Your task to perform on an android device: open app "Microsoft Excel" (install if not already installed) Image 0: 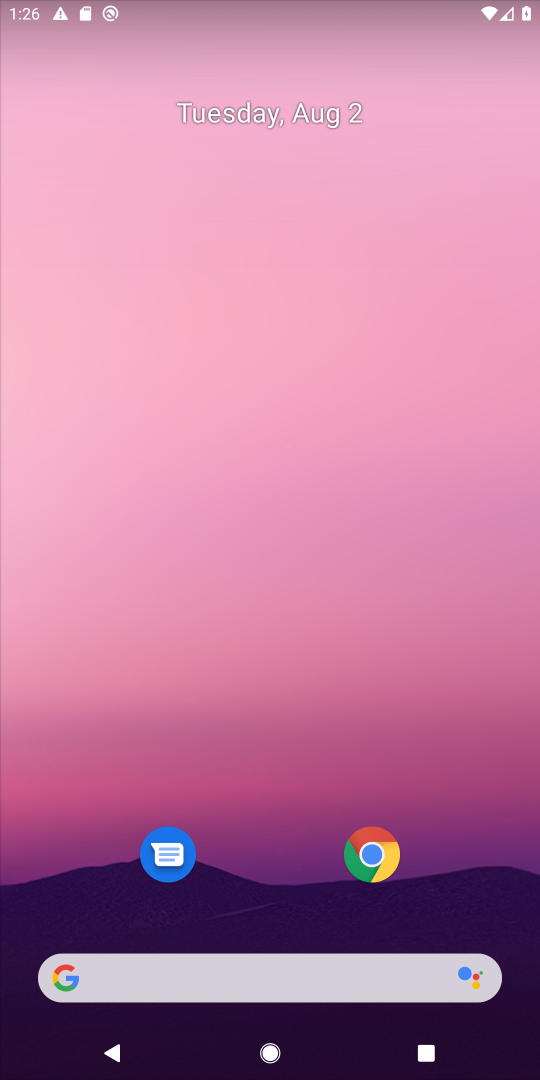
Step 0: drag from (313, 1071) to (369, 111)
Your task to perform on an android device: open app "Microsoft Excel" (install if not already installed) Image 1: 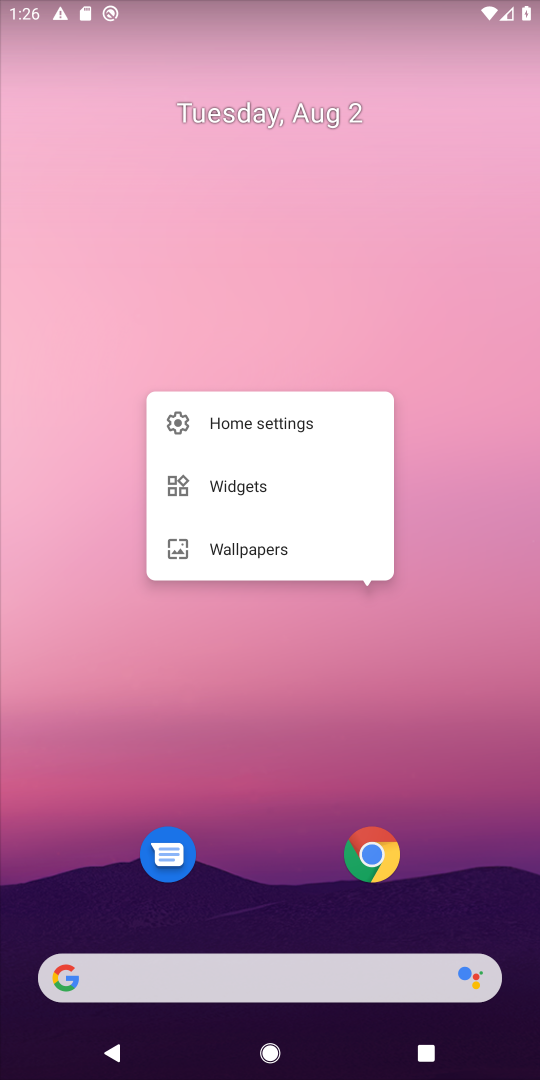
Step 1: press home button
Your task to perform on an android device: open app "Microsoft Excel" (install if not already installed) Image 2: 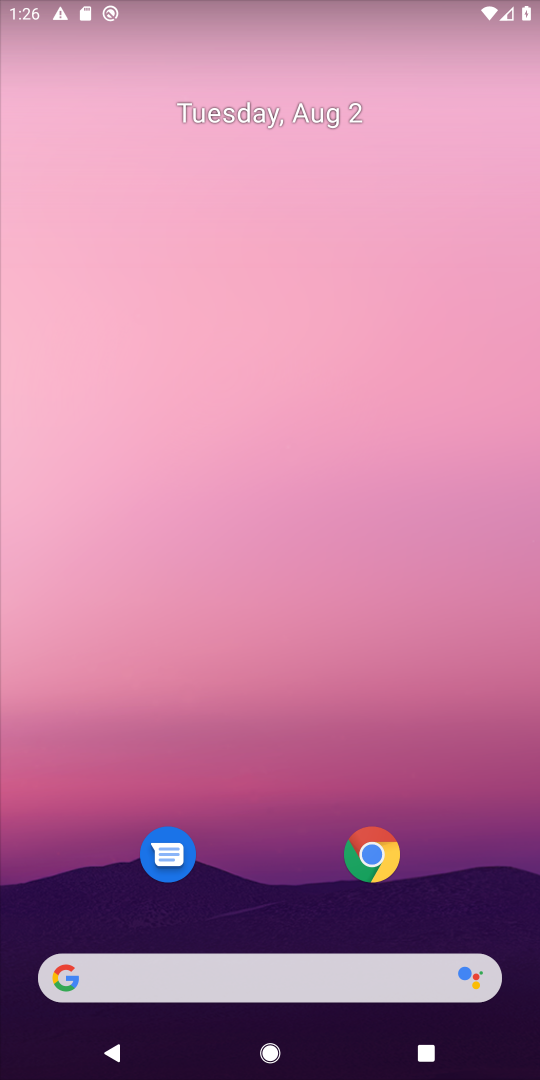
Step 2: drag from (309, 536) to (338, 149)
Your task to perform on an android device: open app "Microsoft Excel" (install if not already installed) Image 3: 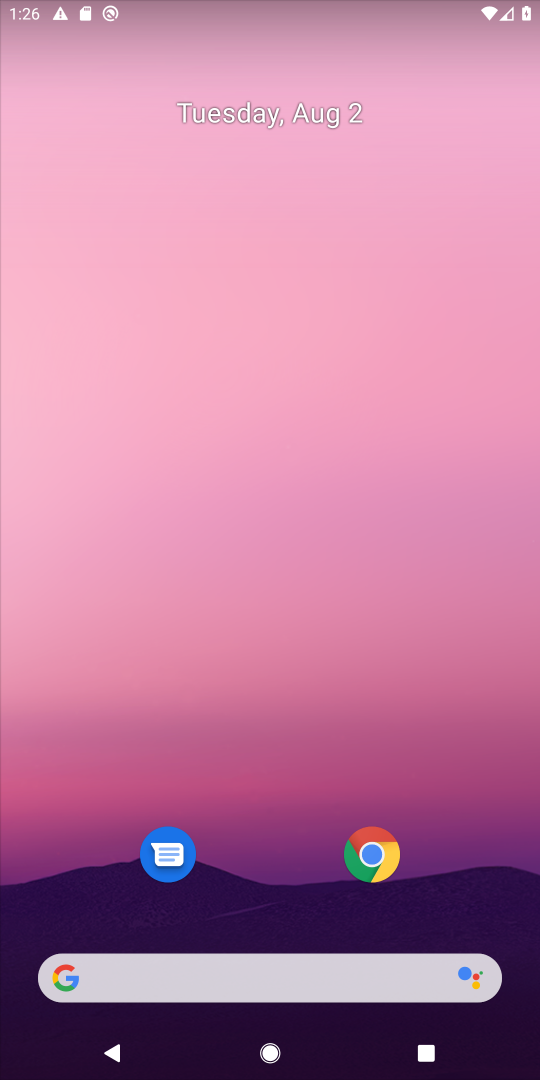
Step 3: drag from (313, 1067) to (358, 30)
Your task to perform on an android device: open app "Microsoft Excel" (install if not already installed) Image 4: 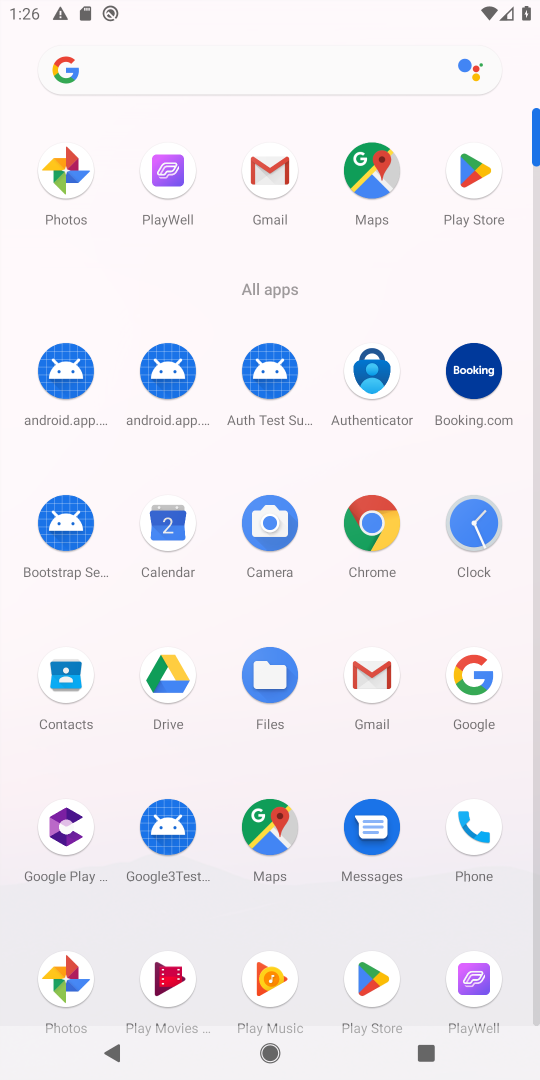
Step 4: click (484, 173)
Your task to perform on an android device: open app "Microsoft Excel" (install if not already installed) Image 5: 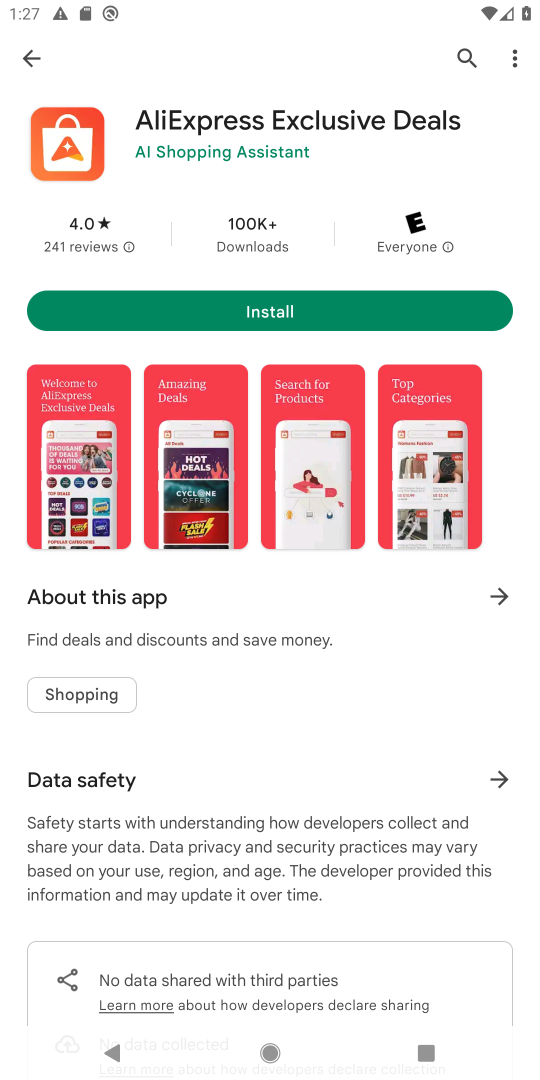
Step 5: click (464, 60)
Your task to perform on an android device: open app "Microsoft Excel" (install if not already installed) Image 6: 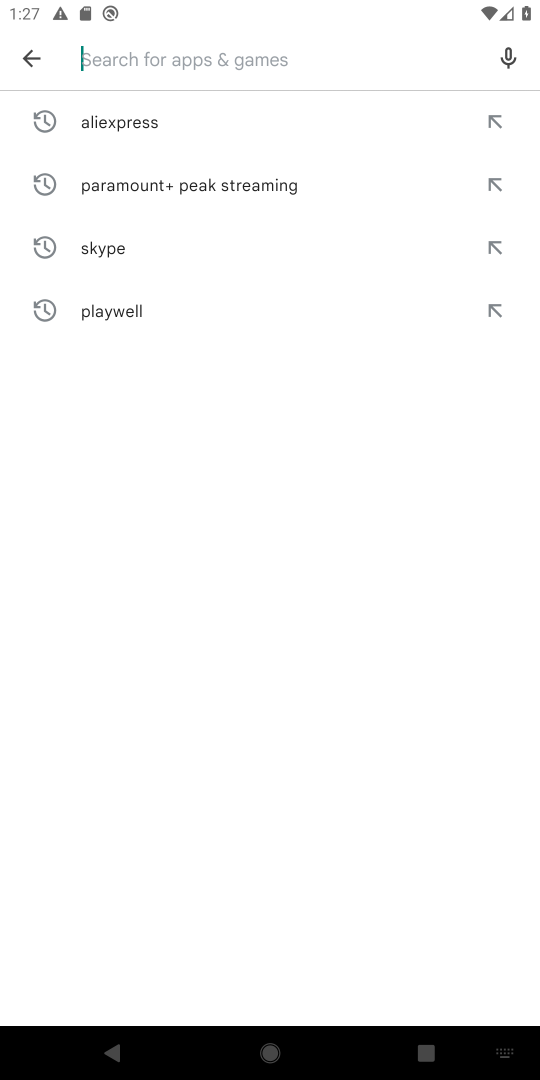
Step 6: type "Microsoft Excel"
Your task to perform on an android device: open app "Microsoft Excel" (install if not already installed) Image 7: 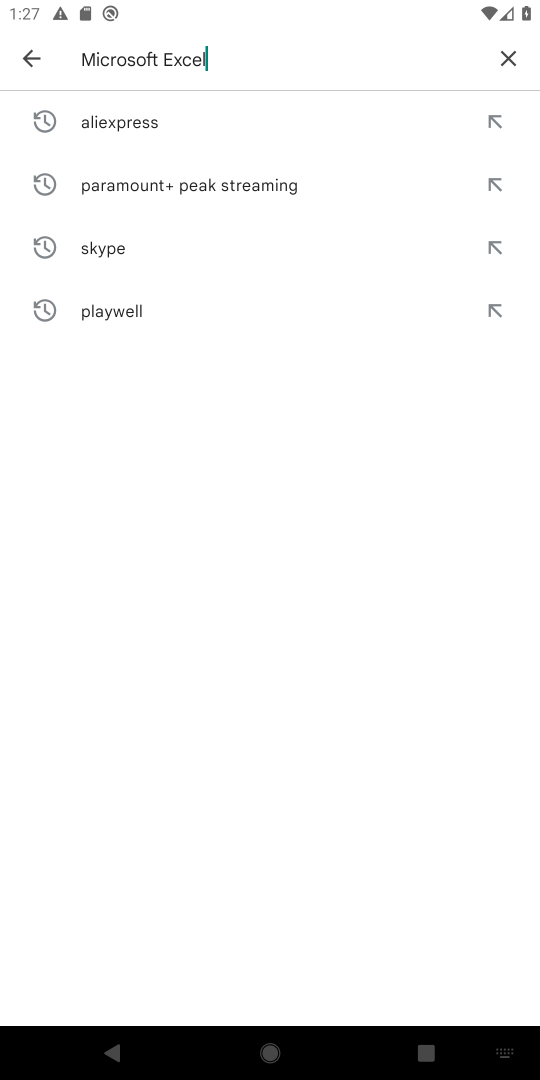
Step 7: type ""
Your task to perform on an android device: open app "Microsoft Excel" (install if not already installed) Image 8: 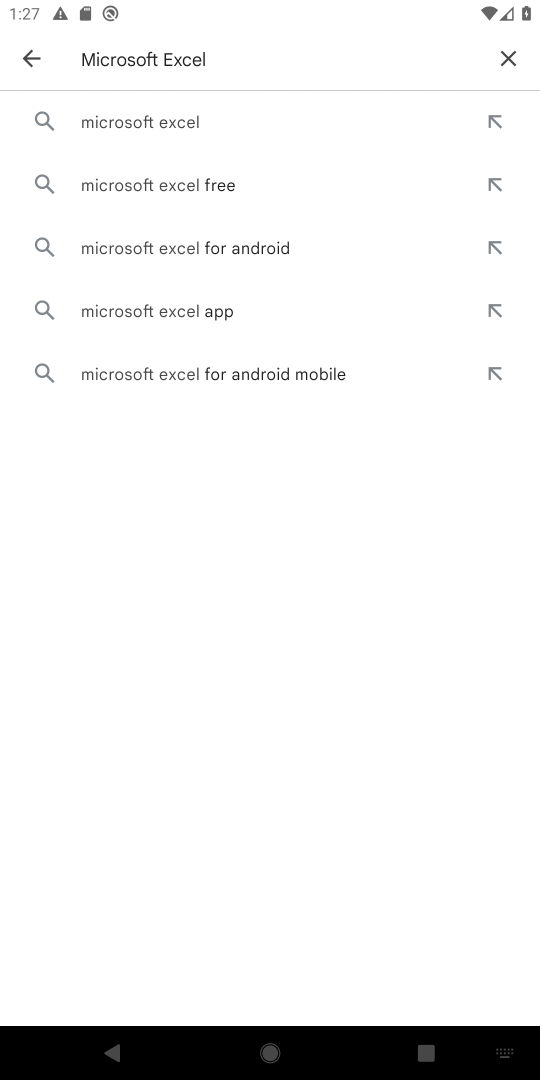
Step 8: click (166, 124)
Your task to perform on an android device: open app "Microsoft Excel" (install if not already installed) Image 9: 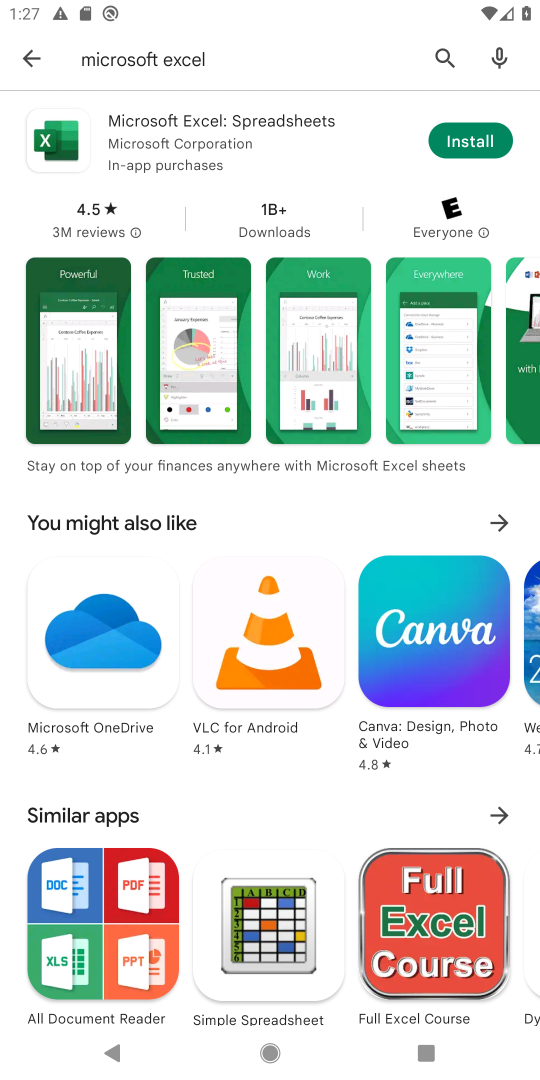
Step 9: click (485, 141)
Your task to perform on an android device: open app "Microsoft Excel" (install if not already installed) Image 10: 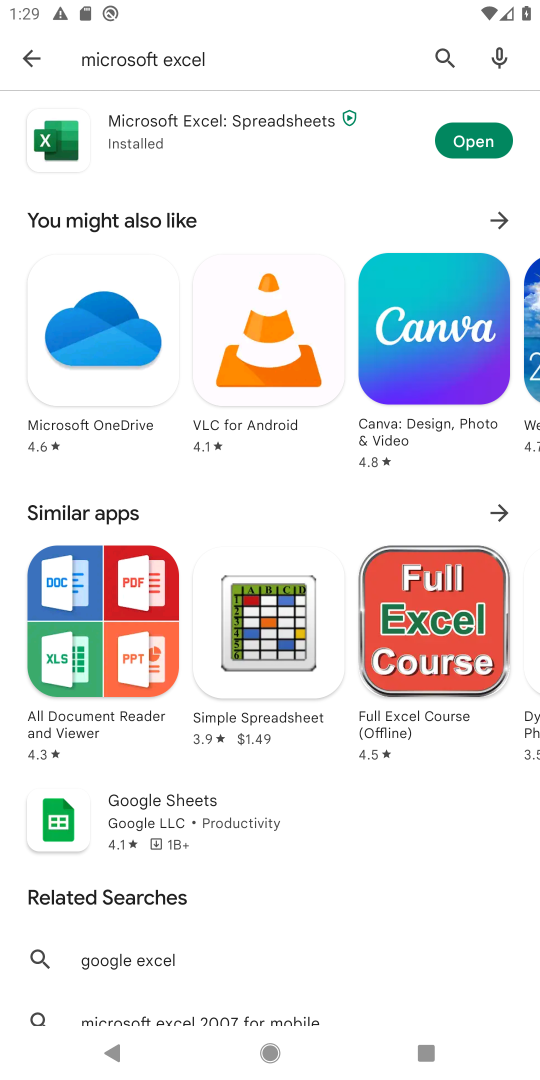
Step 10: click (484, 144)
Your task to perform on an android device: open app "Microsoft Excel" (install if not already installed) Image 11: 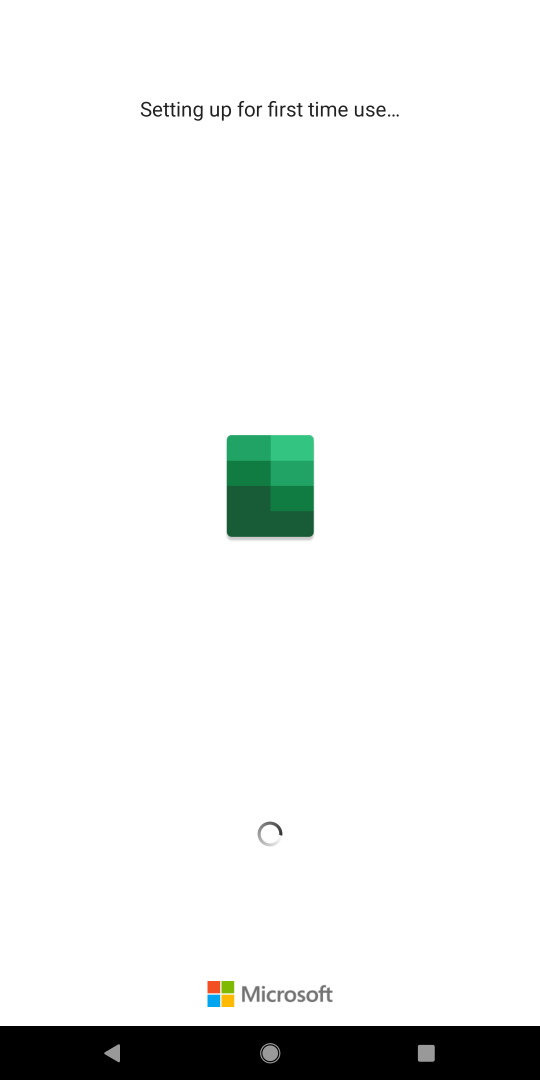
Step 11: task complete